Your task to perform on an android device: turn on notifications settings in the gmail app Image 0: 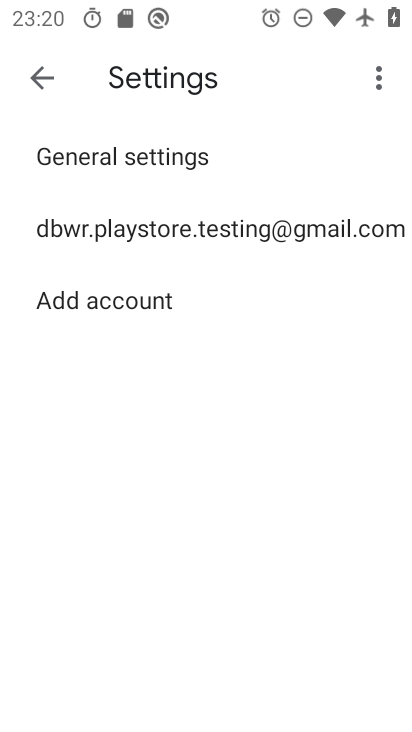
Step 0: click (359, 221)
Your task to perform on an android device: turn on notifications settings in the gmail app Image 1: 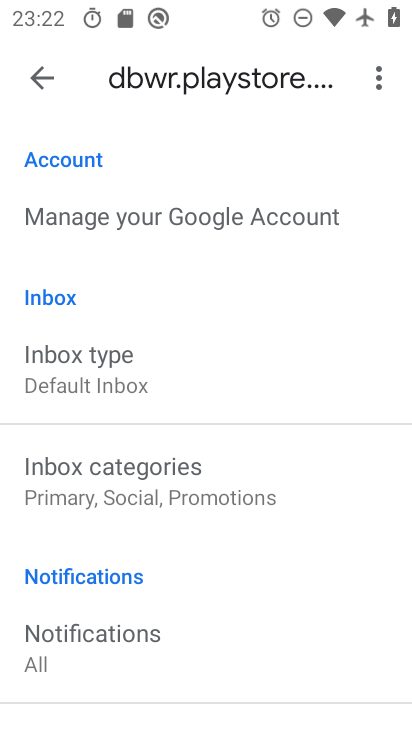
Step 1: drag from (211, 651) to (272, 293)
Your task to perform on an android device: turn on notifications settings in the gmail app Image 2: 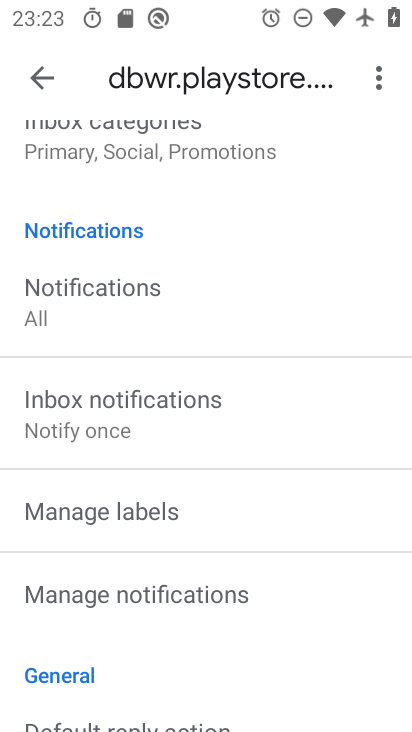
Step 2: click (218, 581)
Your task to perform on an android device: turn on notifications settings in the gmail app Image 3: 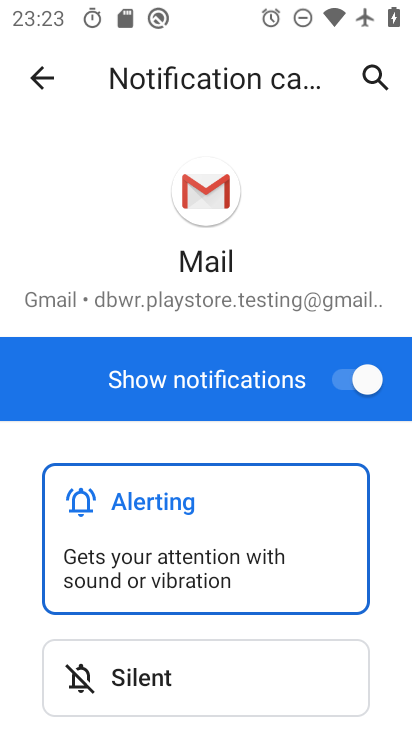
Step 3: task complete